Your task to perform on an android device: toggle translation in the chrome app Image 0: 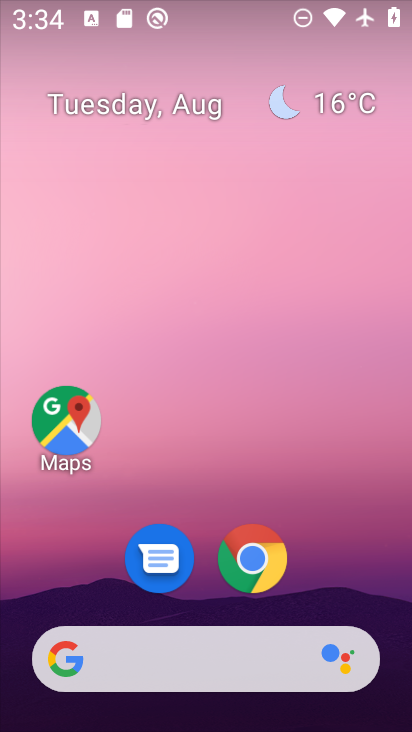
Step 0: click (247, 545)
Your task to perform on an android device: toggle translation in the chrome app Image 1: 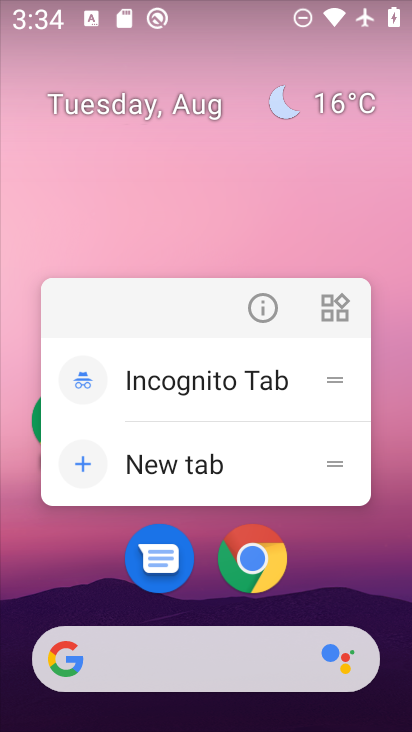
Step 1: click (247, 545)
Your task to perform on an android device: toggle translation in the chrome app Image 2: 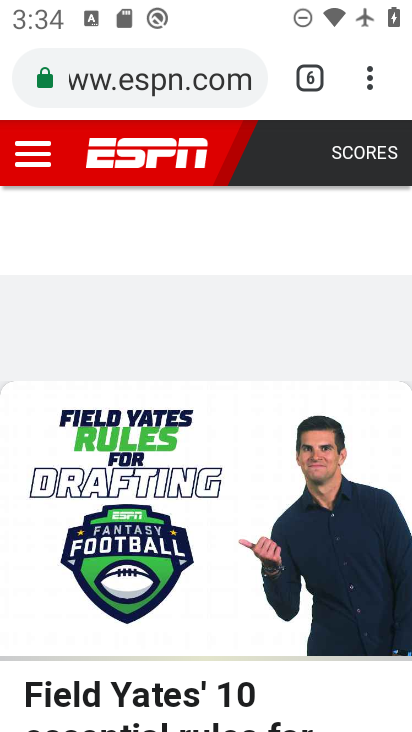
Step 2: click (367, 74)
Your task to perform on an android device: toggle translation in the chrome app Image 3: 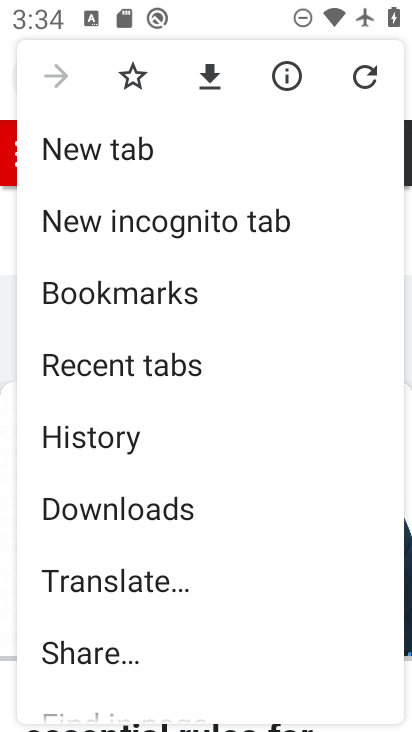
Step 3: drag from (178, 616) to (189, 309)
Your task to perform on an android device: toggle translation in the chrome app Image 4: 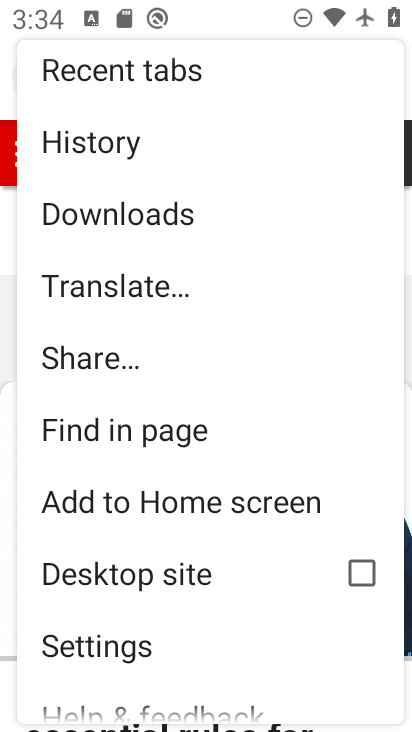
Step 4: drag from (186, 649) to (188, 300)
Your task to perform on an android device: toggle translation in the chrome app Image 5: 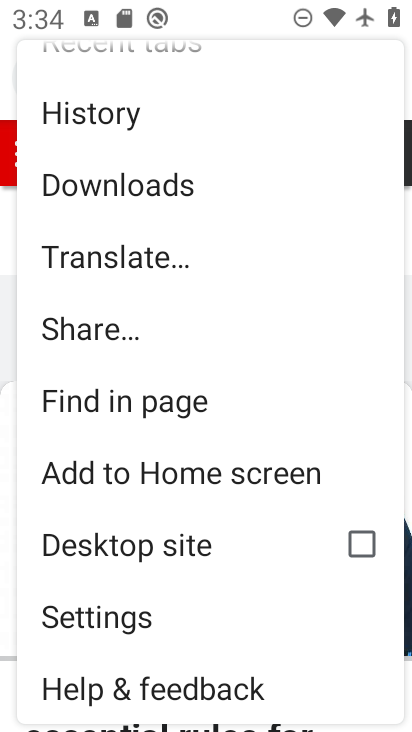
Step 5: click (149, 616)
Your task to perform on an android device: toggle translation in the chrome app Image 6: 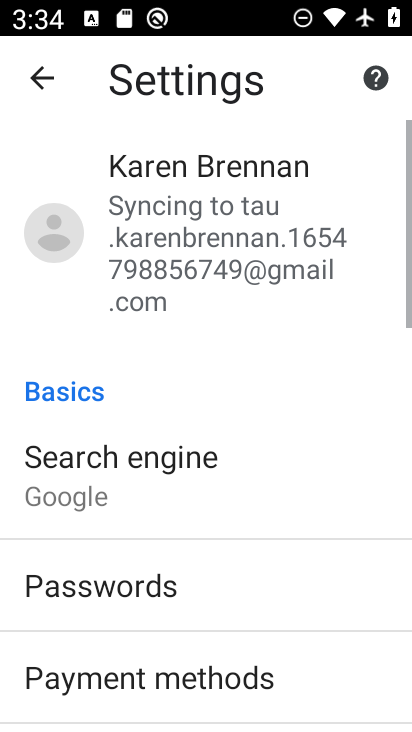
Step 6: drag from (149, 616) to (149, 132)
Your task to perform on an android device: toggle translation in the chrome app Image 7: 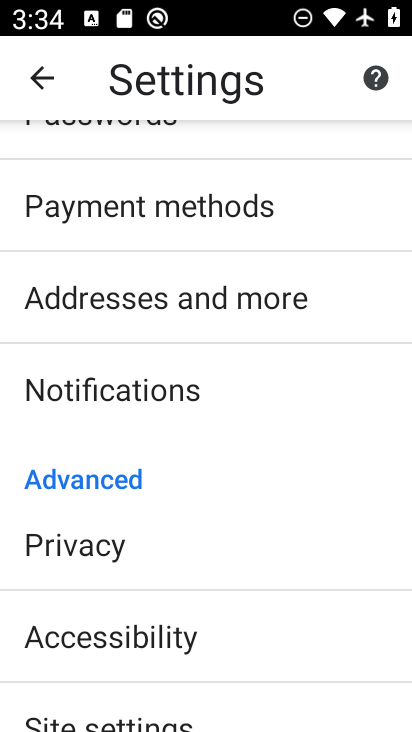
Step 7: drag from (205, 588) to (188, 264)
Your task to perform on an android device: toggle translation in the chrome app Image 8: 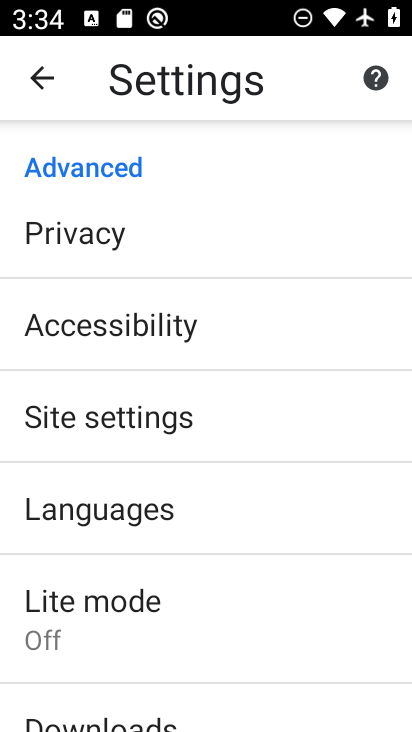
Step 8: click (172, 504)
Your task to perform on an android device: toggle translation in the chrome app Image 9: 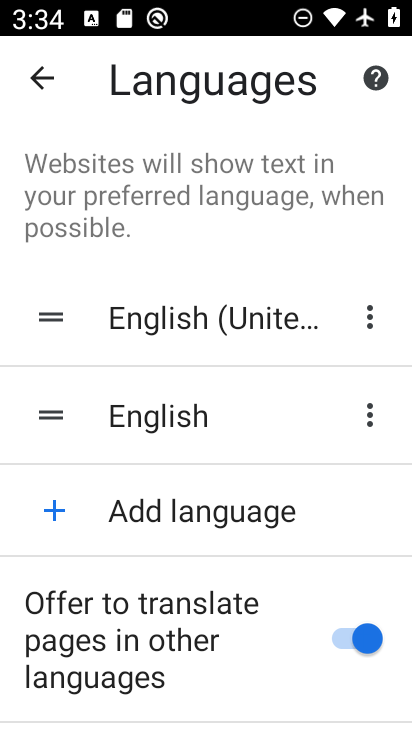
Step 9: click (333, 634)
Your task to perform on an android device: toggle translation in the chrome app Image 10: 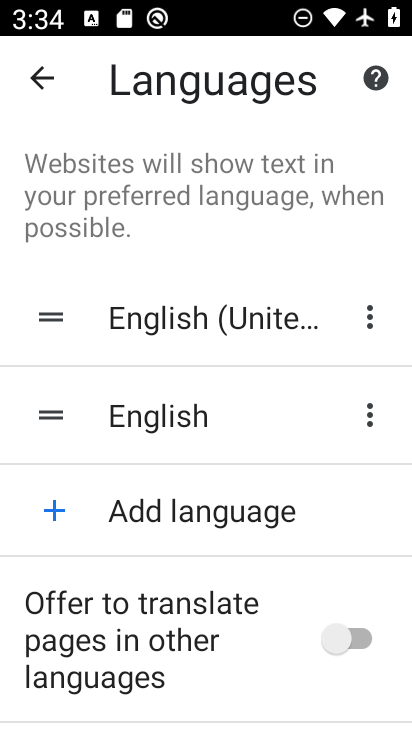
Step 10: task complete